Your task to perform on an android device: Go to accessibility settings Image 0: 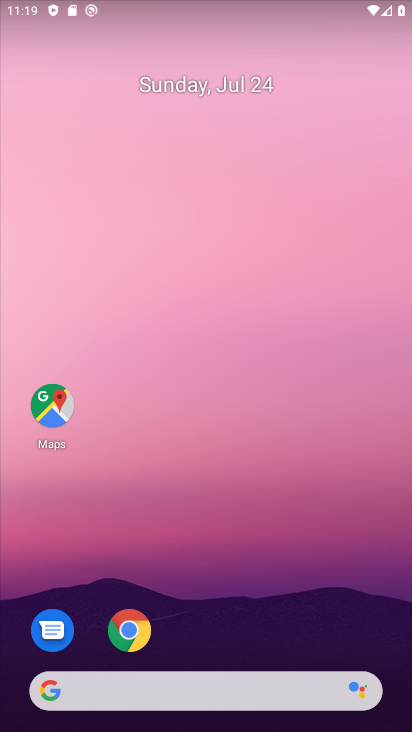
Step 0: drag from (202, 530) to (219, 18)
Your task to perform on an android device: Go to accessibility settings Image 1: 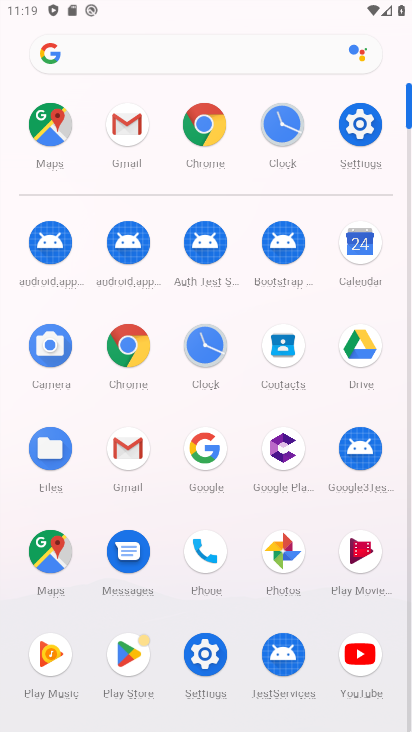
Step 1: click (353, 126)
Your task to perform on an android device: Go to accessibility settings Image 2: 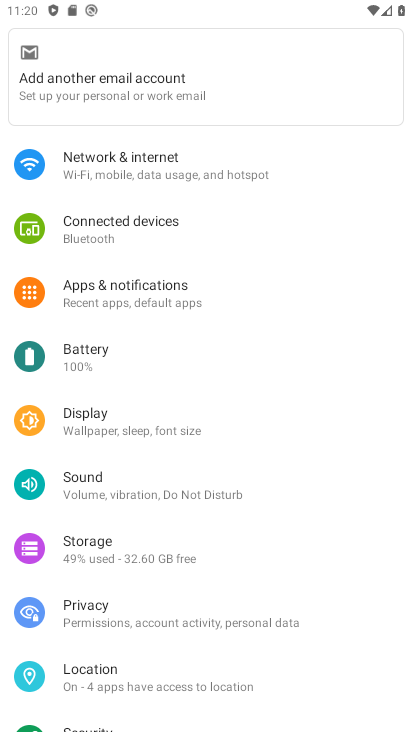
Step 2: drag from (139, 559) to (155, 258)
Your task to perform on an android device: Go to accessibility settings Image 3: 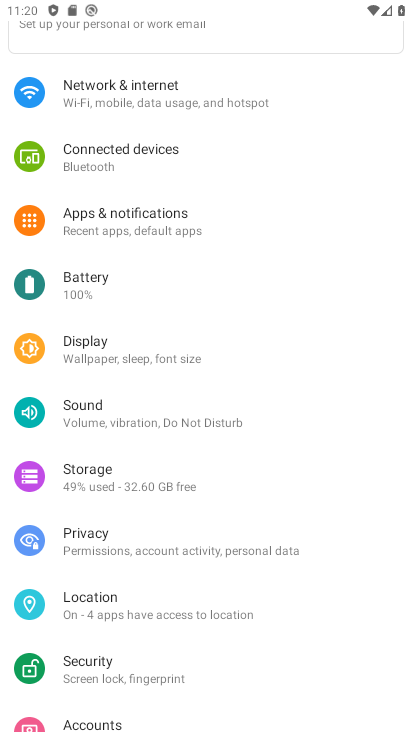
Step 3: drag from (148, 501) to (155, 448)
Your task to perform on an android device: Go to accessibility settings Image 4: 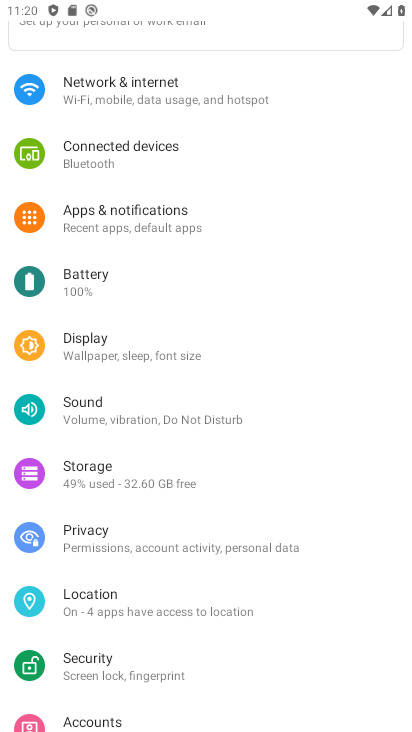
Step 4: drag from (180, 195) to (193, 131)
Your task to perform on an android device: Go to accessibility settings Image 5: 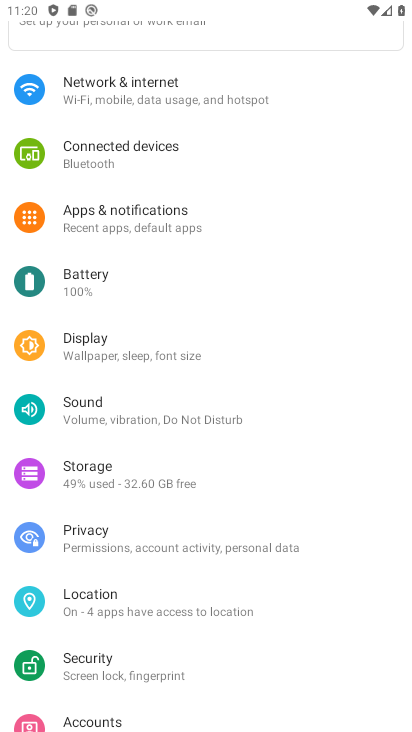
Step 5: drag from (110, 598) to (137, 466)
Your task to perform on an android device: Go to accessibility settings Image 6: 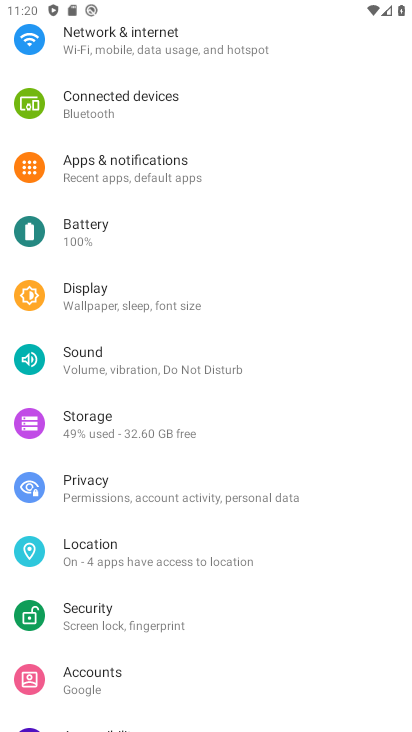
Step 6: drag from (135, 644) to (162, 438)
Your task to perform on an android device: Go to accessibility settings Image 7: 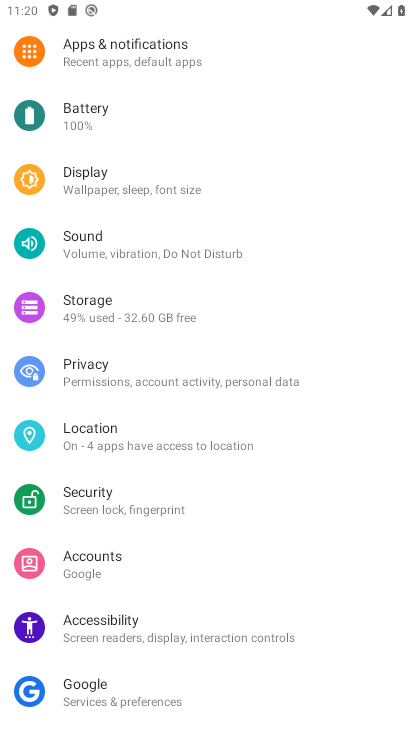
Step 7: click (133, 609)
Your task to perform on an android device: Go to accessibility settings Image 8: 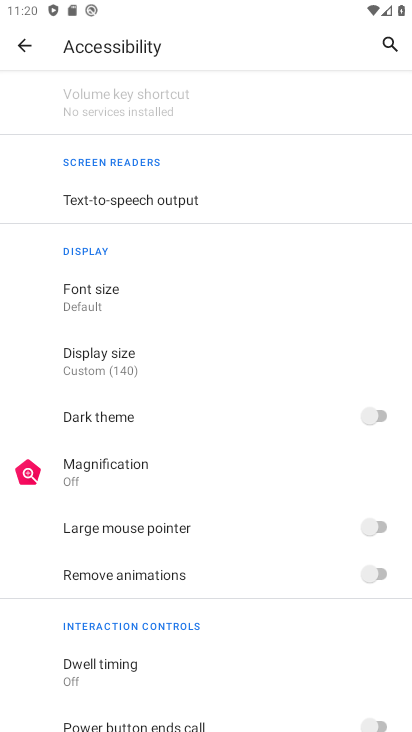
Step 8: task complete